Your task to perform on an android device: turn on javascript in the chrome app Image 0: 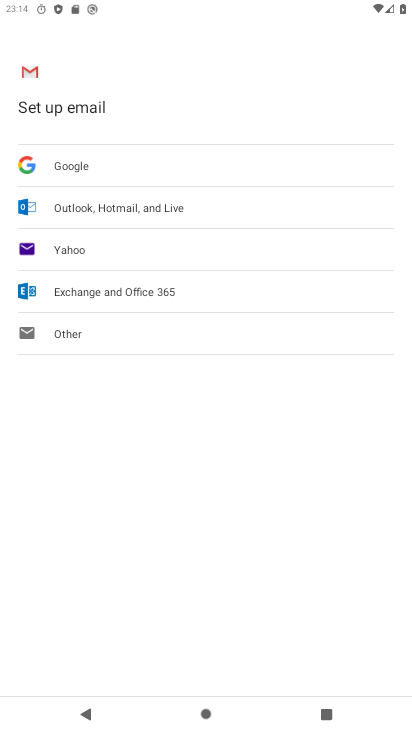
Step 0: press home button
Your task to perform on an android device: turn on javascript in the chrome app Image 1: 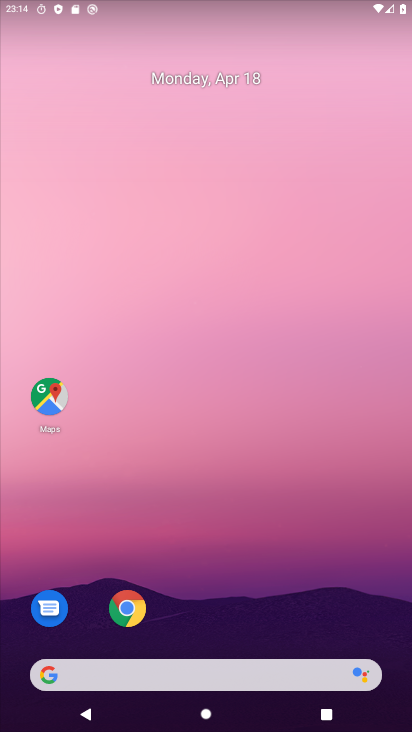
Step 1: drag from (224, 599) to (238, 171)
Your task to perform on an android device: turn on javascript in the chrome app Image 2: 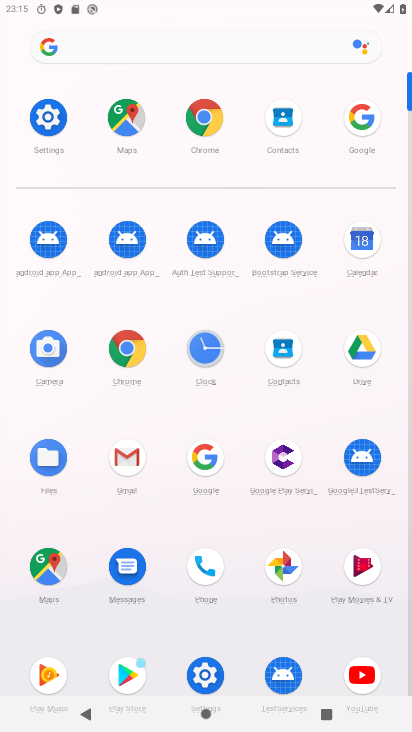
Step 2: click (201, 119)
Your task to perform on an android device: turn on javascript in the chrome app Image 3: 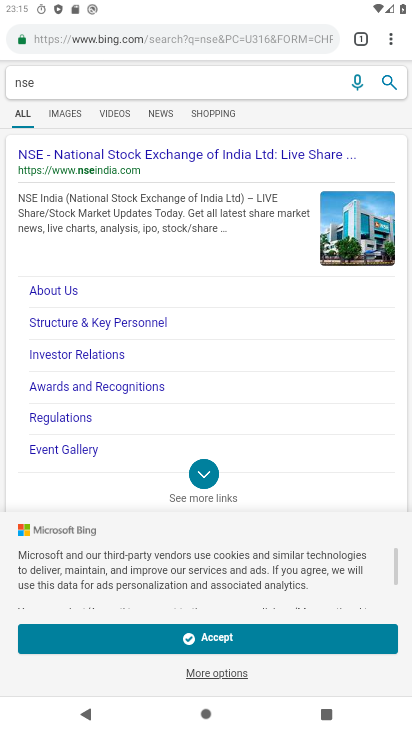
Step 3: drag from (386, 35) to (267, 514)
Your task to perform on an android device: turn on javascript in the chrome app Image 4: 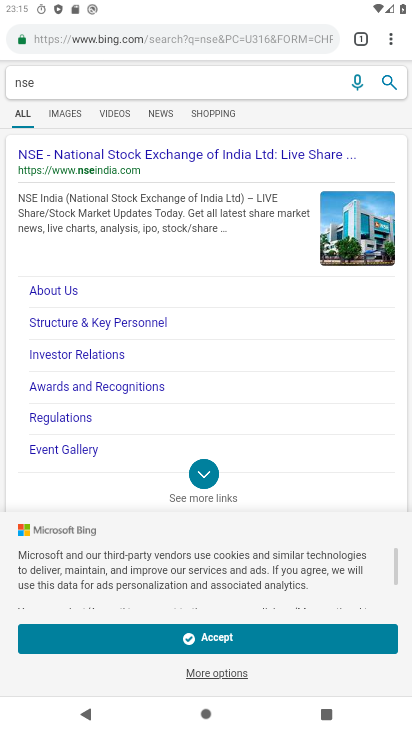
Step 4: click (267, 514)
Your task to perform on an android device: turn on javascript in the chrome app Image 5: 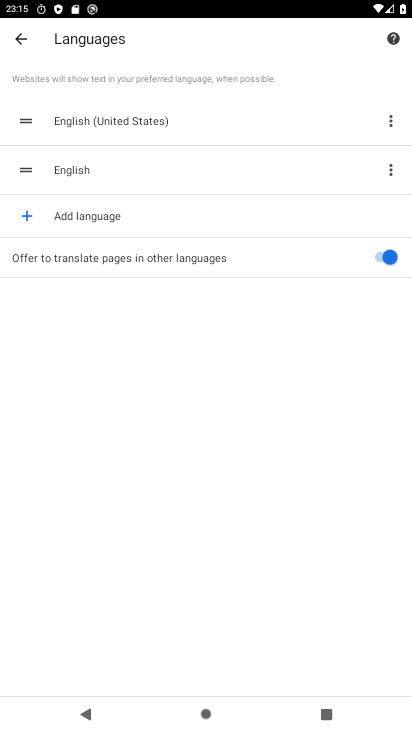
Step 5: press back button
Your task to perform on an android device: turn on javascript in the chrome app Image 6: 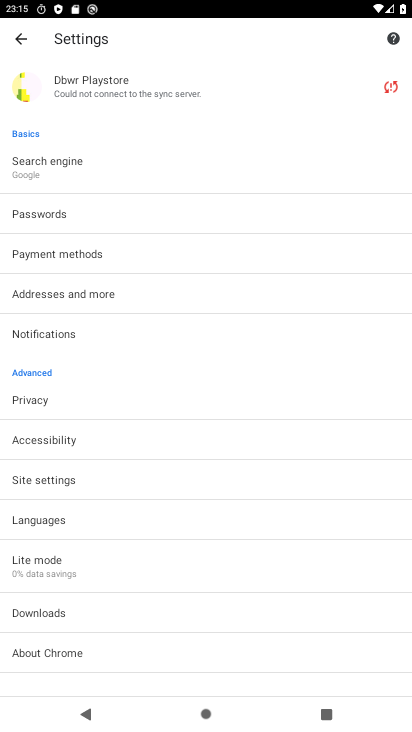
Step 6: drag from (144, 546) to (169, 245)
Your task to perform on an android device: turn on javascript in the chrome app Image 7: 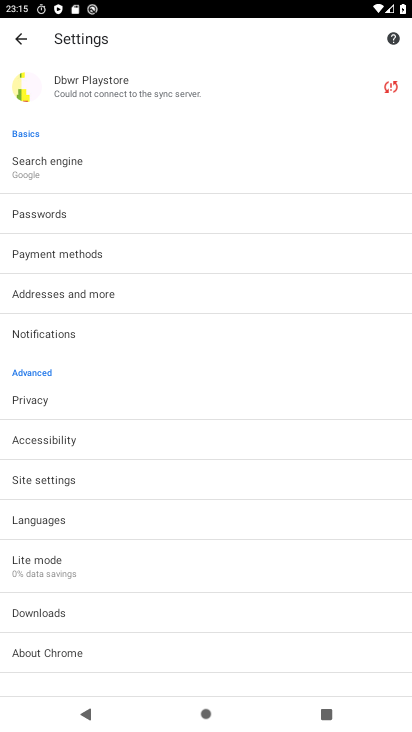
Step 7: click (64, 484)
Your task to perform on an android device: turn on javascript in the chrome app Image 8: 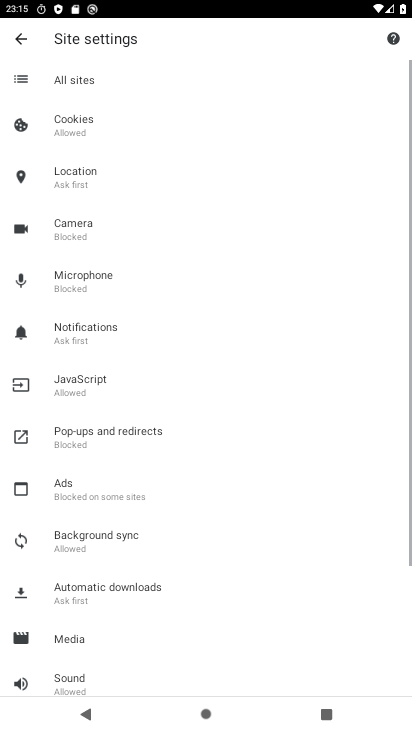
Step 8: click (119, 385)
Your task to perform on an android device: turn on javascript in the chrome app Image 9: 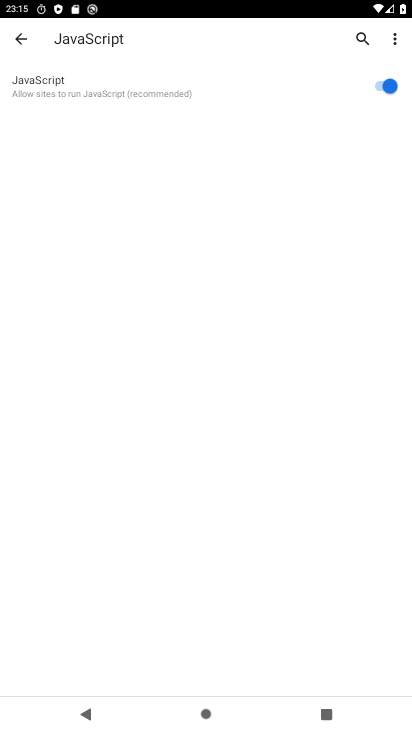
Step 9: task complete